Your task to perform on an android device: move a message to another label in the gmail app Image 0: 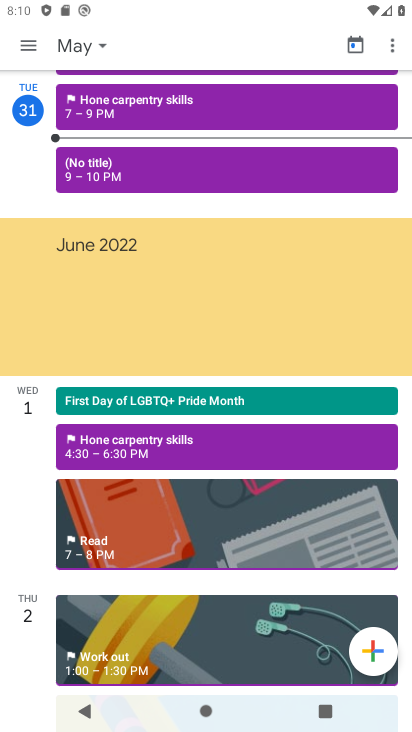
Step 0: press home button
Your task to perform on an android device: move a message to another label in the gmail app Image 1: 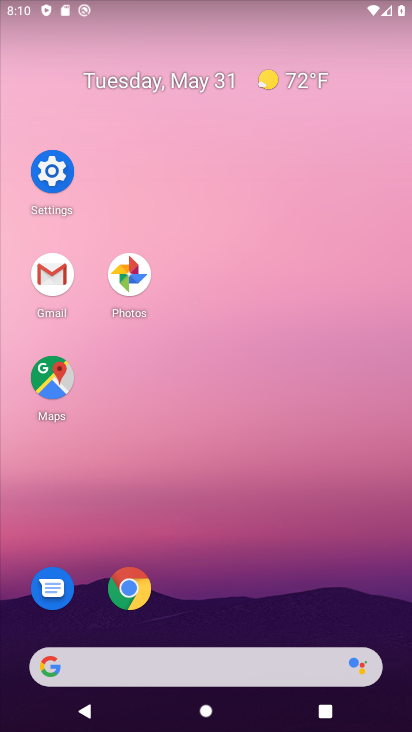
Step 1: click (42, 279)
Your task to perform on an android device: move a message to another label in the gmail app Image 2: 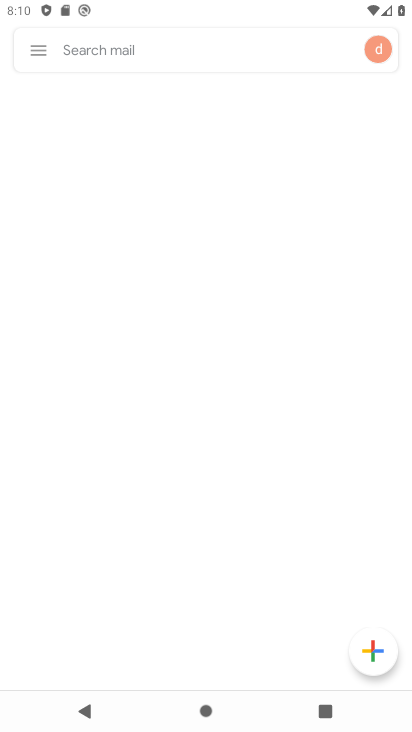
Step 2: click (35, 50)
Your task to perform on an android device: move a message to another label in the gmail app Image 3: 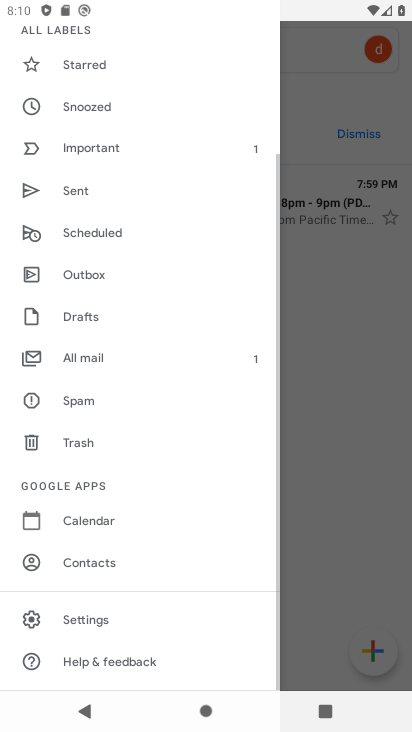
Step 3: click (152, 357)
Your task to perform on an android device: move a message to another label in the gmail app Image 4: 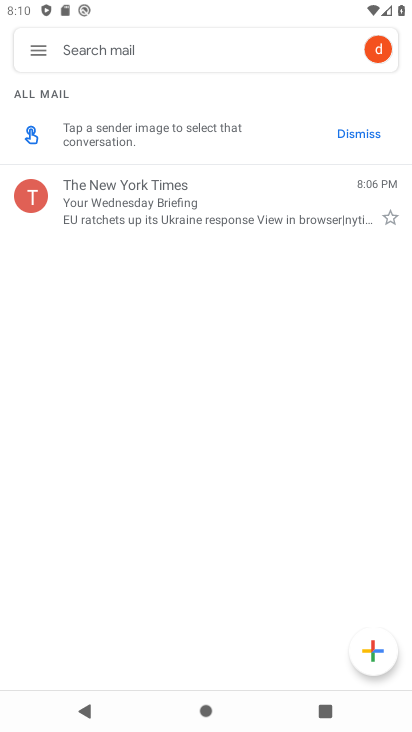
Step 4: click (240, 208)
Your task to perform on an android device: move a message to another label in the gmail app Image 5: 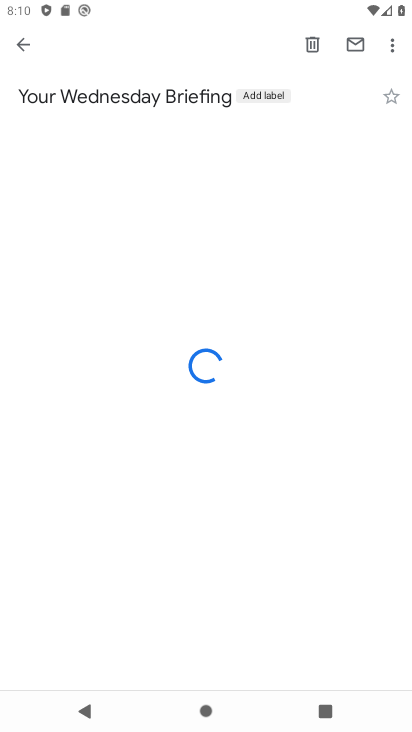
Step 5: click (386, 92)
Your task to perform on an android device: move a message to another label in the gmail app Image 6: 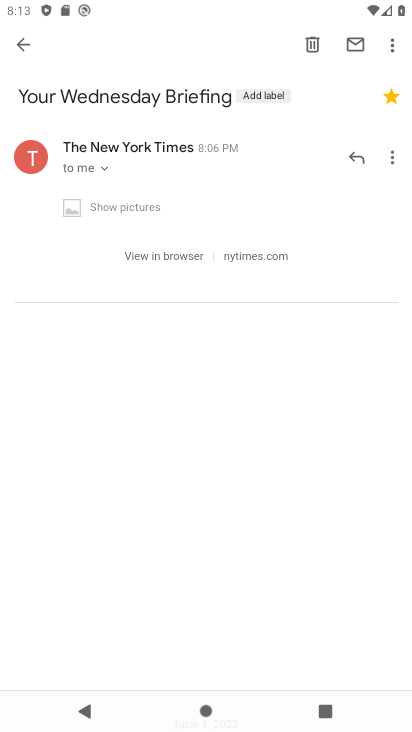
Step 6: task complete